Your task to perform on an android device: open the mobile data screen to see how much data has been used Image 0: 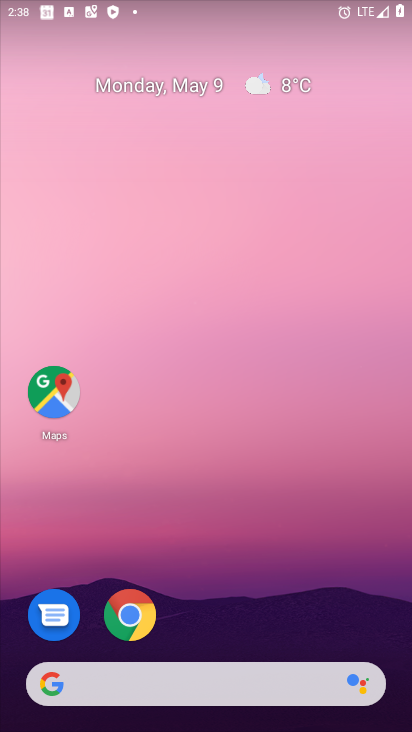
Step 0: drag from (338, 622) to (320, 60)
Your task to perform on an android device: open the mobile data screen to see how much data has been used Image 1: 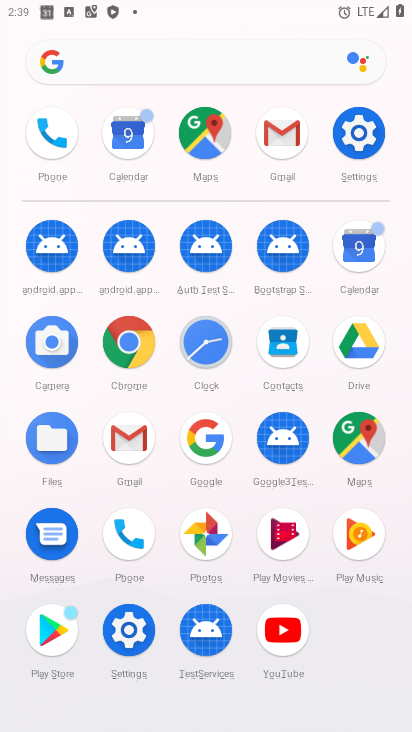
Step 1: click (126, 631)
Your task to perform on an android device: open the mobile data screen to see how much data has been used Image 2: 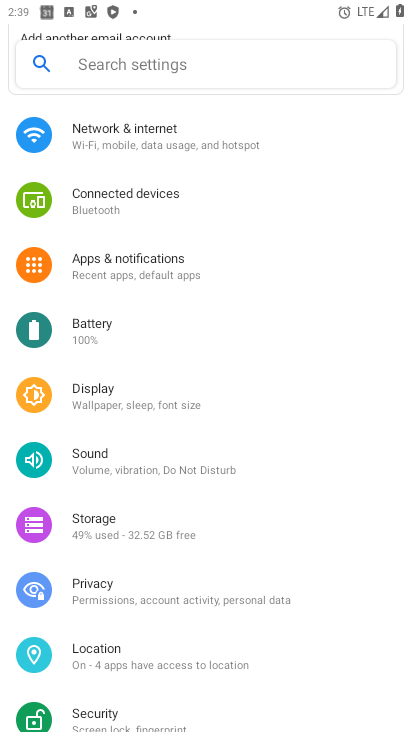
Step 2: click (105, 137)
Your task to perform on an android device: open the mobile data screen to see how much data has been used Image 3: 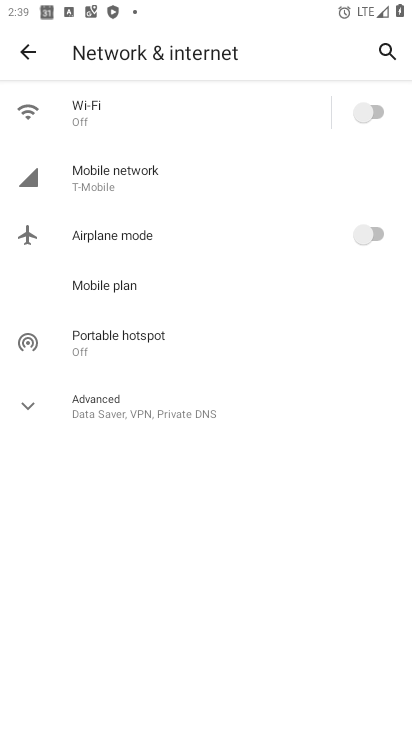
Step 3: click (104, 182)
Your task to perform on an android device: open the mobile data screen to see how much data has been used Image 4: 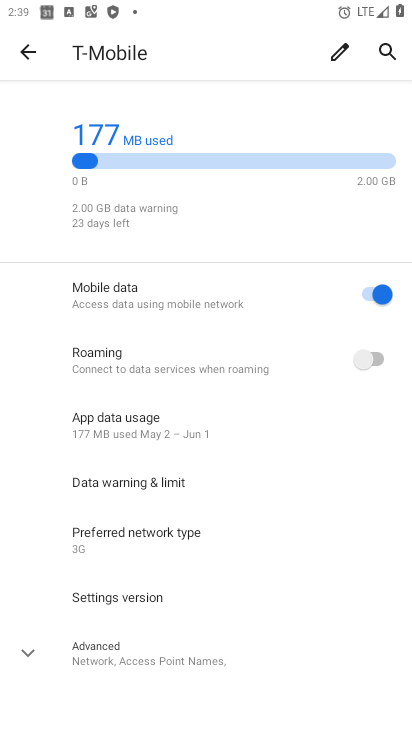
Step 4: click (32, 647)
Your task to perform on an android device: open the mobile data screen to see how much data has been used Image 5: 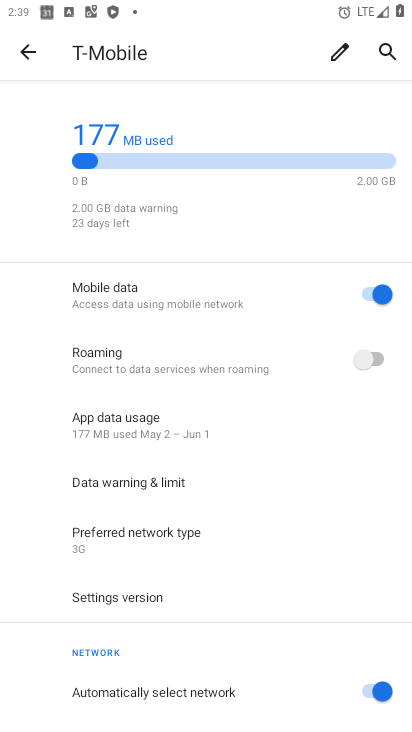
Step 5: task complete